Your task to perform on an android device: set the stopwatch Image 0: 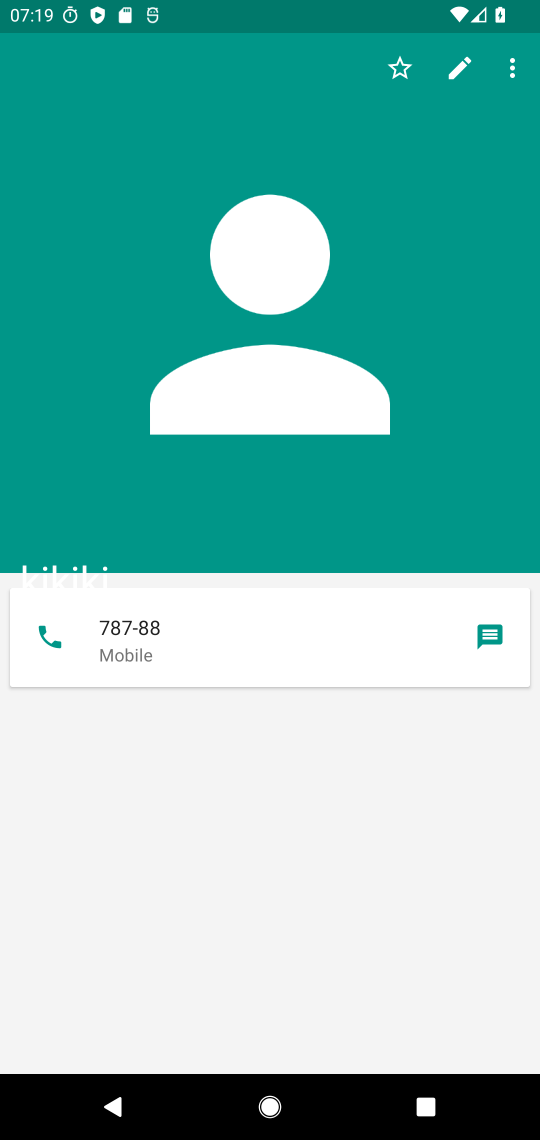
Step 0: press home button
Your task to perform on an android device: set the stopwatch Image 1: 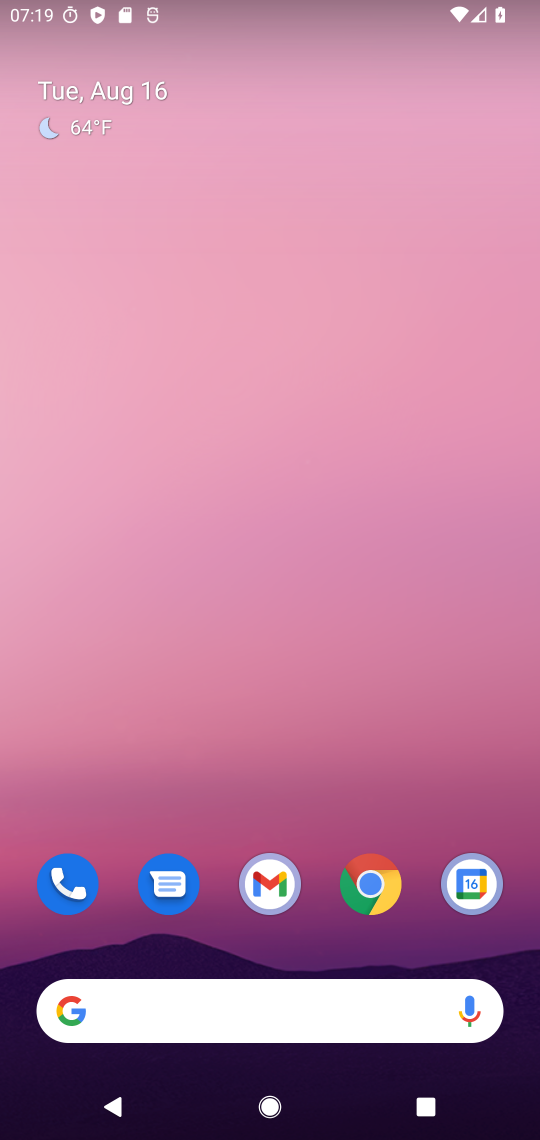
Step 1: drag from (256, 813) to (205, 157)
Your task to perform on an android device: set the stopwatch Image 2: 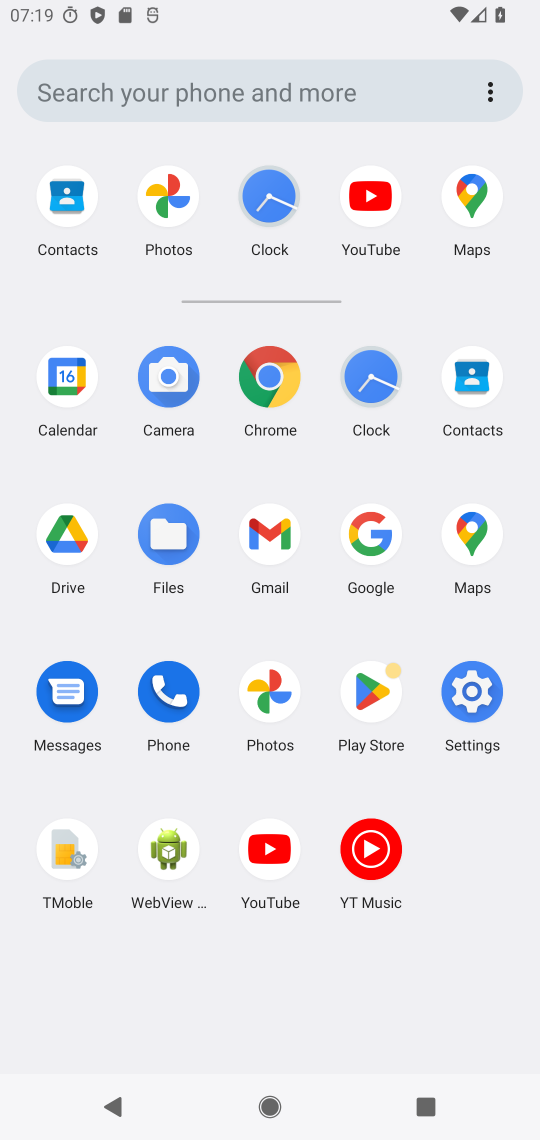
Step 2: click (264, 202)
Your task to perform on an android device: set the stopwatch Image 3: 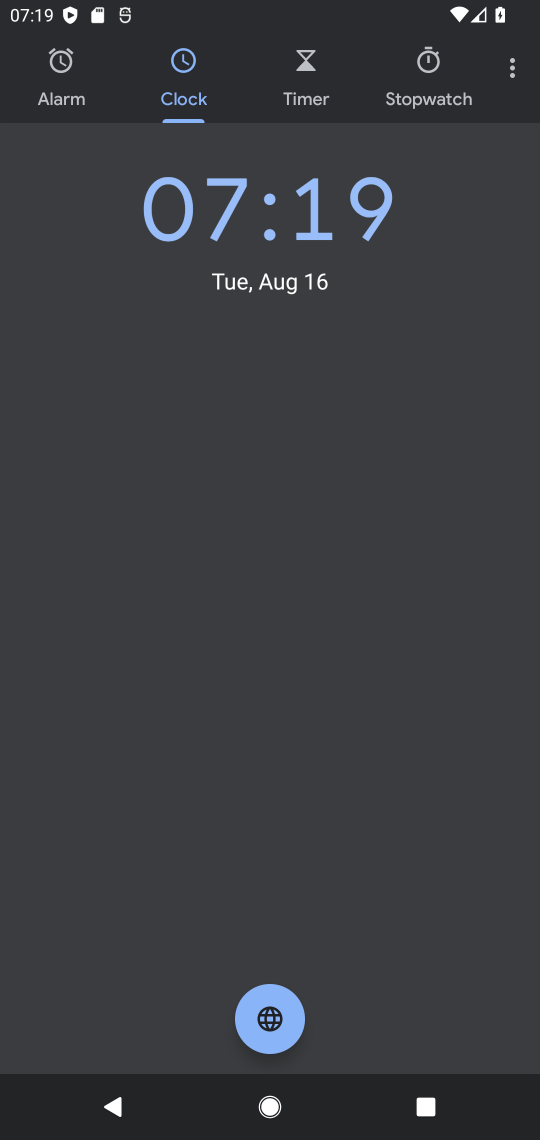
Step 3: click (419, 77)
Your task to perform on an android device: set the stopwatch Image 4: 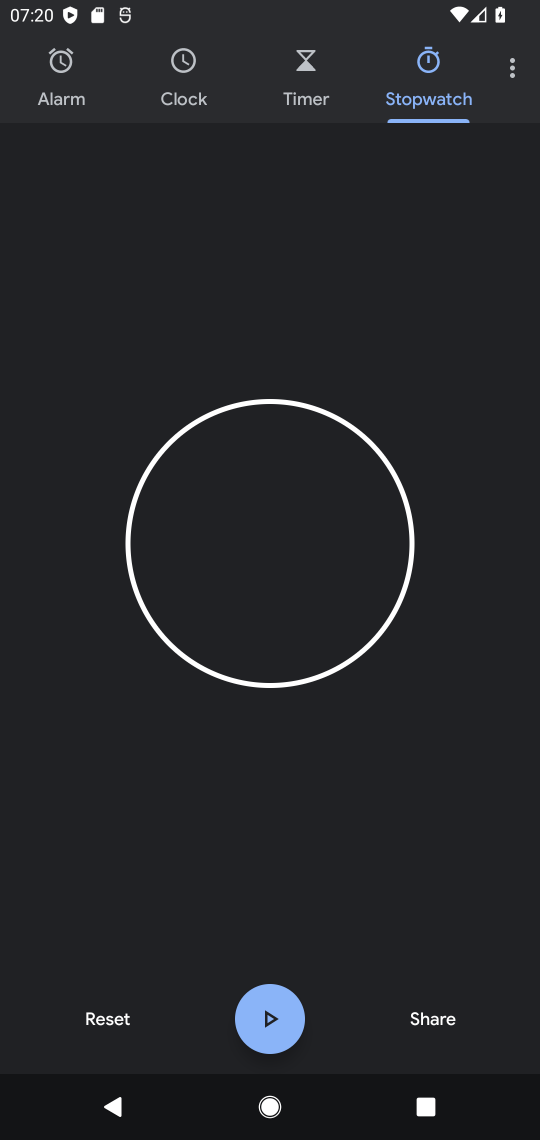
Step 4: task complete